Your task to perform on an android device: Empty the shopping cart on amazon.com. Search for "bose soundlink mini" on amazon.com, select the first entry, and add it to the cart. Image 0: 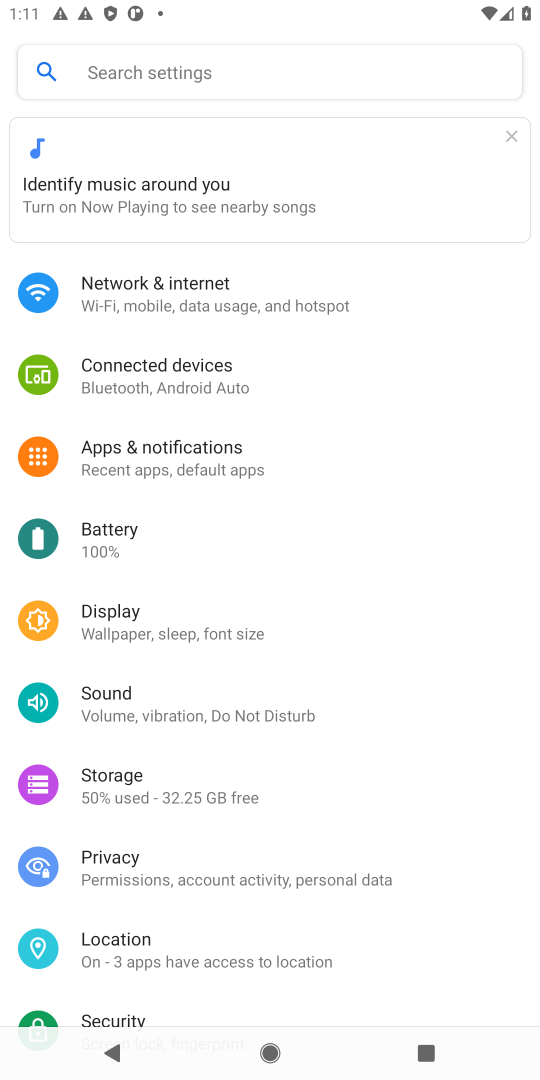
Step 0: press home button
Your task to perform on an android device: Empty the shopping cart on amazon.com. Search for "bose soundlink mini" on amazon.com, select the first entry, and add it to the cart. Image 1: 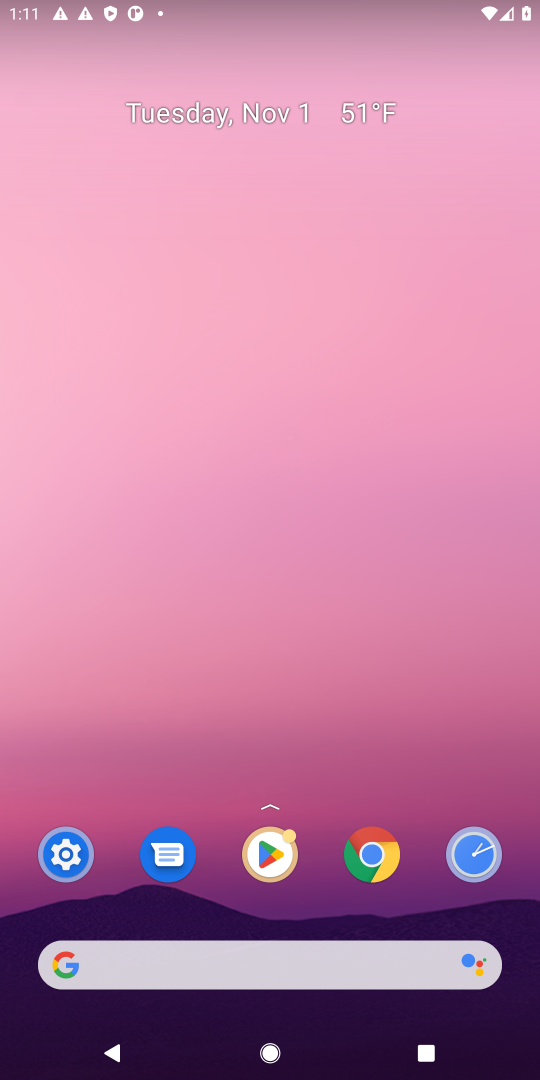
Step 1: click (284, 958)
Your task to perform on an android device: Empty the shopping cart on amazon.com. Search for "bose soundlink mini" on amazon.com, select the first entry, and add it to the cart. Image 2: 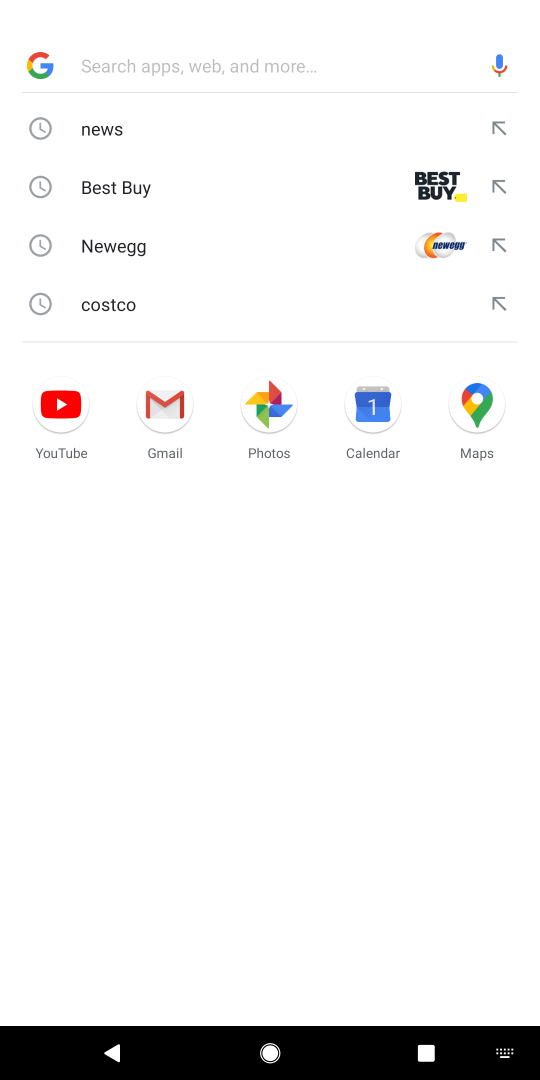
Step 2: type "amazon"
Your task to perform on an android device: Empty the shopping cart on amazon.com. Search for "bose soundlink mini" on amazon.com, select the first entry, and add it to the cart. Image 3: 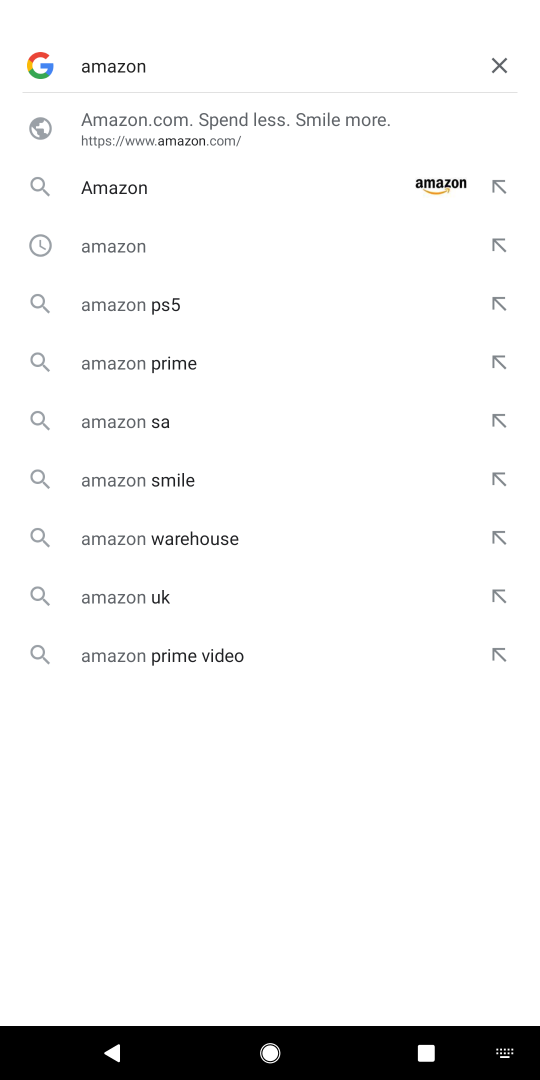
Step 3: click (117, 188)
Your task to perform on an android device: Empty the shopping cart on amazon.com. Search for "bose soundlink mini" on amazon.com, select the first entry, and add it to the cart. Image 4: 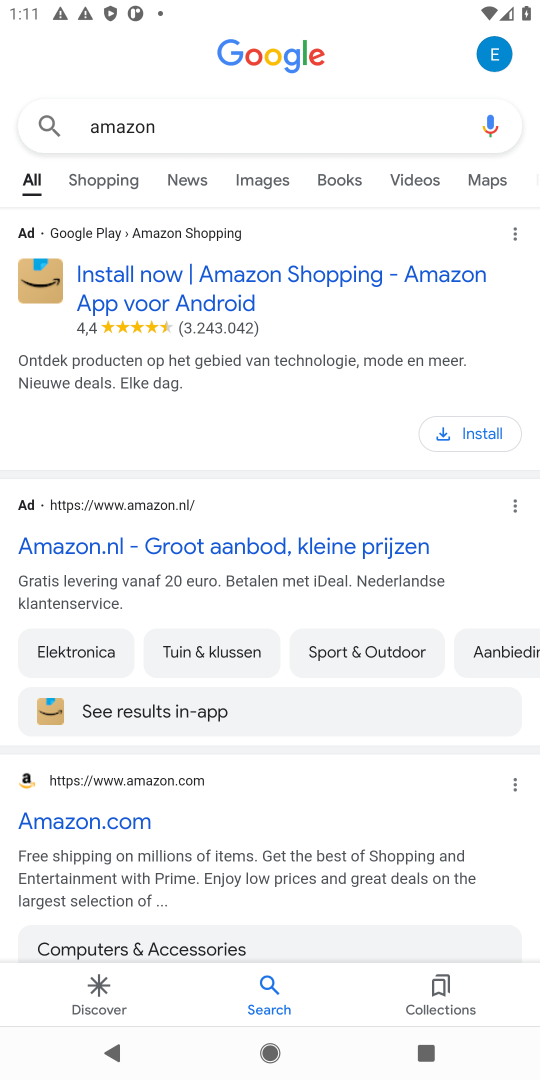
Step 4: click (108, 814)
Your task to perform on an android device: Empty the shopping cart on amazon.com. Search for "bose soundlink mini" on amazon.com, select the first entry, and add it to the cart. Image 5: 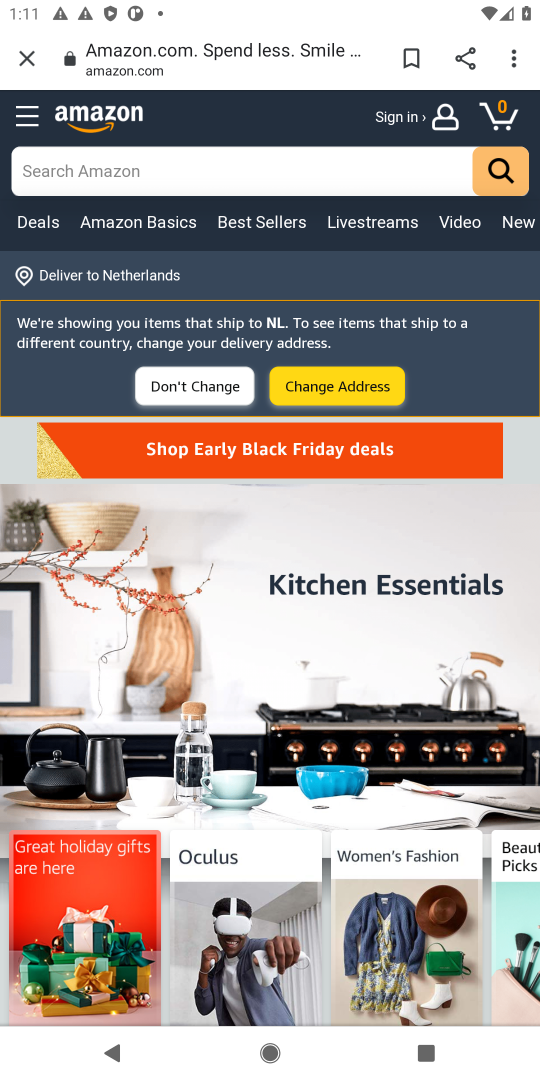
Step 5: click (163, 176)
Your task to perform on an android device: Empty the shopping cart on amazon.com. Search for "bose soundlink mini" on amazon.com, select the first entry, and add it to the cart. Image 6: 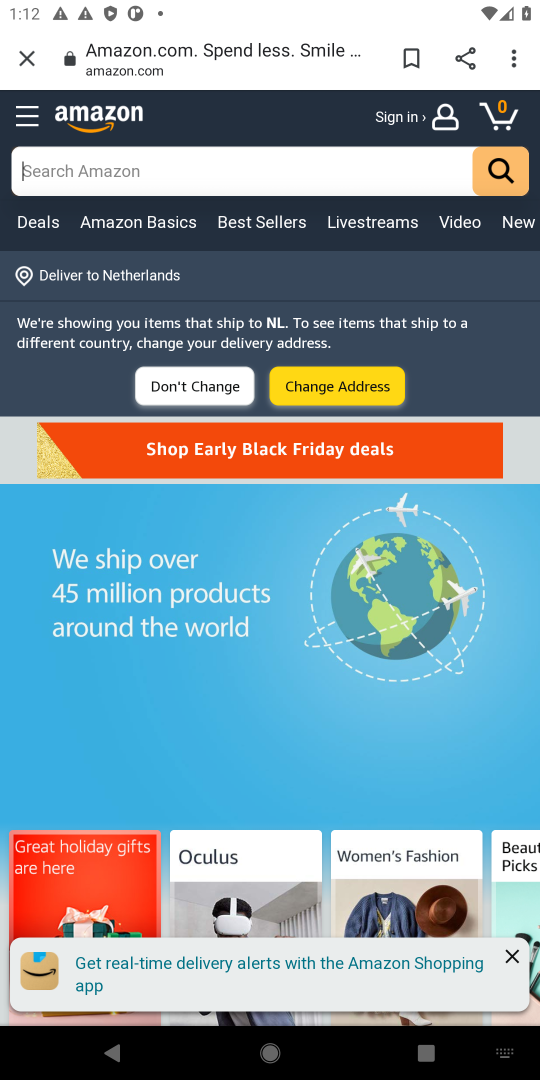
Step 6: type "b"
Your task to perform on an android device: Empty the shopping cart on amazon.com. Search for "bose soundlink mini" on amazon.com, select the first entry, and add it to the cart. Image 7: 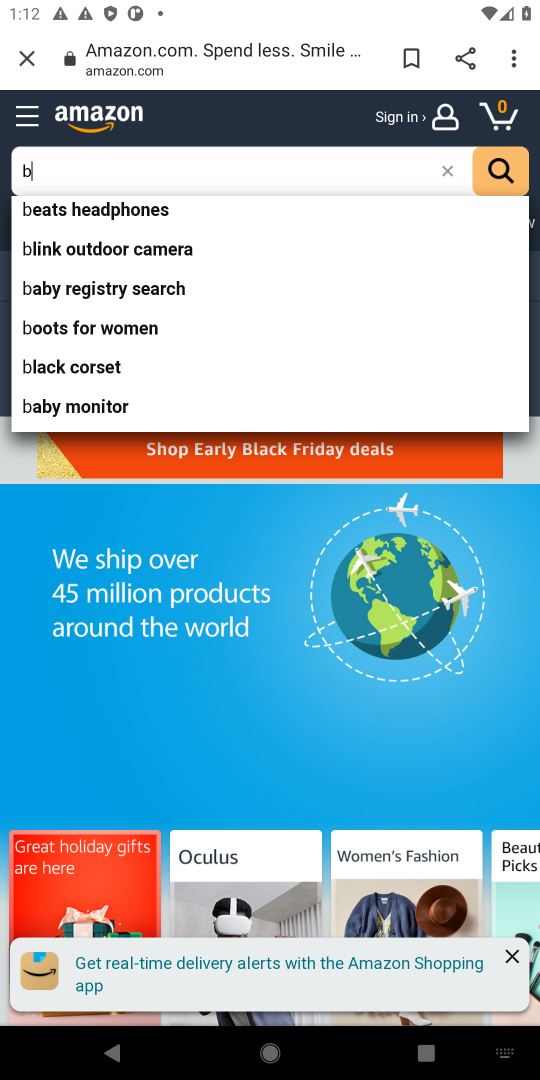
Step 7: type "os"
Your task to perform on an android device: Empty the shopping cart on amazon.com. Search for "bose soundlink mini" on amazon.com, select the first entry, and add it to the cart. Image 8: 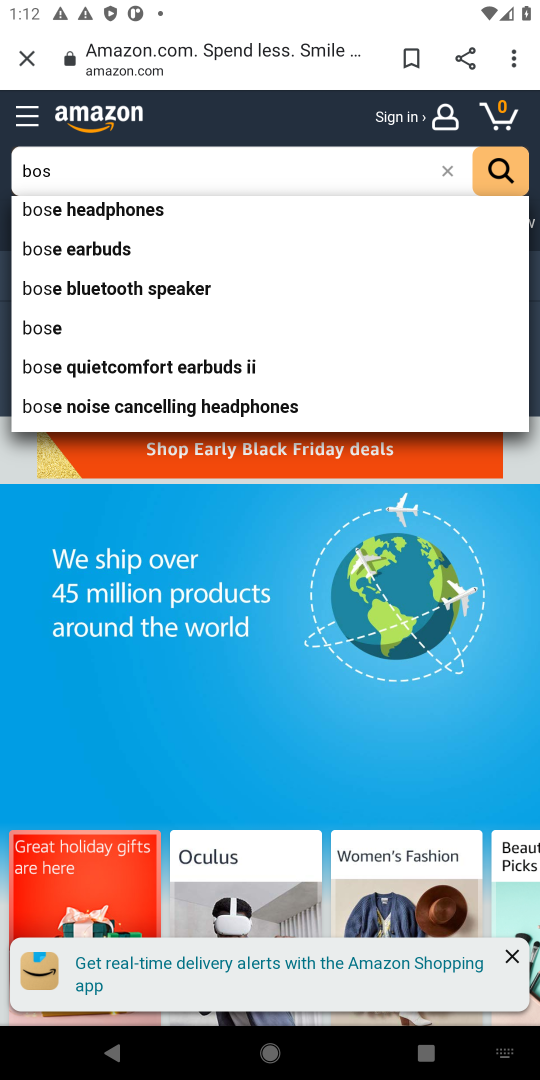
Step 8: type "e soundlink mini"
Your task to perform on an android device: Empty the shopping cart on amazon.com. Search for "bose soundlink mini" on amazon.com, select the first entry, and add it to the cart. Image 9: 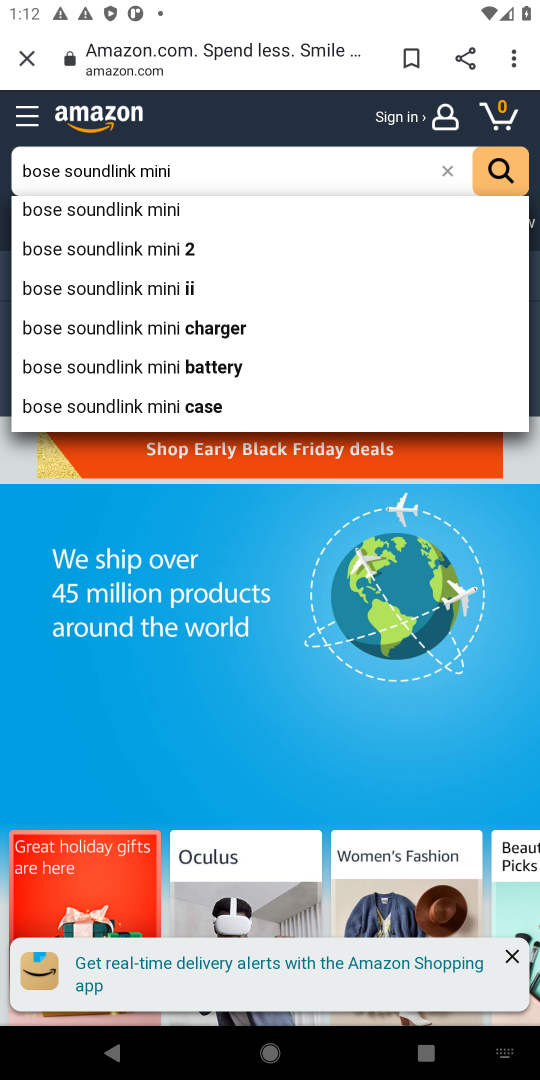
Step 9: click (118, 208)
Your task to perform on an android device: Empty the shopping cart on amazon.com. Search for "bose soundlink mini" on amazon.com, select the first entry, and add it to the cart. Image 10: 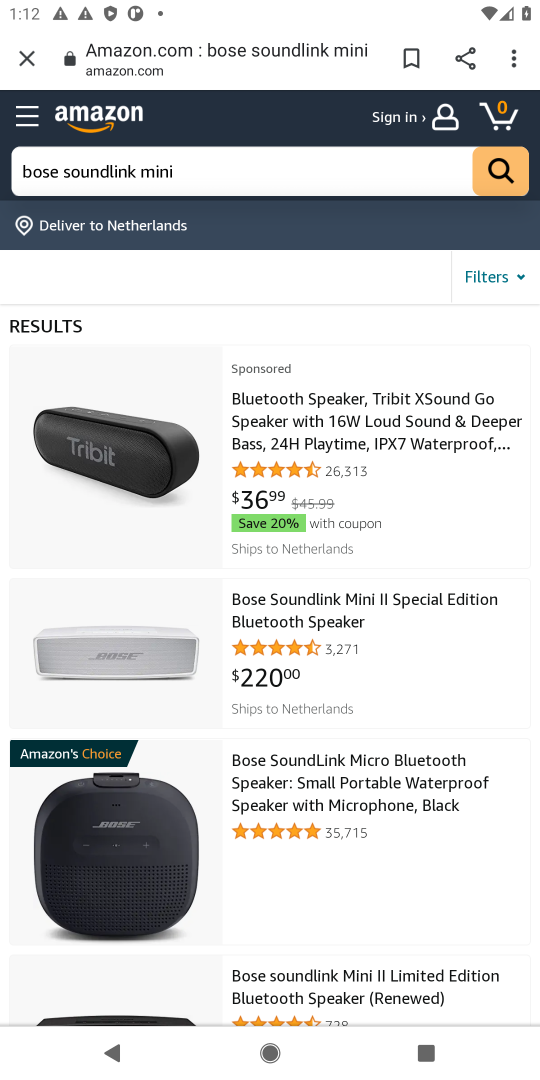
Step 10: click (393, 425)
Your task to perform on an android device: Empty the shopping cart on amazon.com. Search for "bose soundlink mini" on amazon.com, select the first entry, and add it to the cart. Image 11: 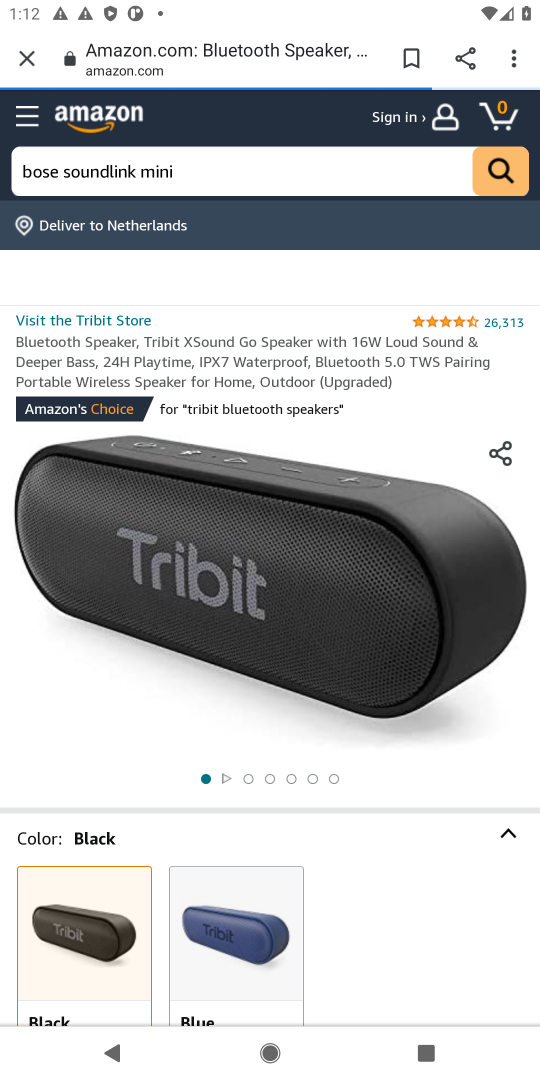
Step 11: drag from (471, 757) to (421, 443)
Your task to perform on an android device: Empty the shopping cart on amazon.com. Search for "bose soundlink mini" on amazon.com, select the first entry, and add it to the cart. Image 12: 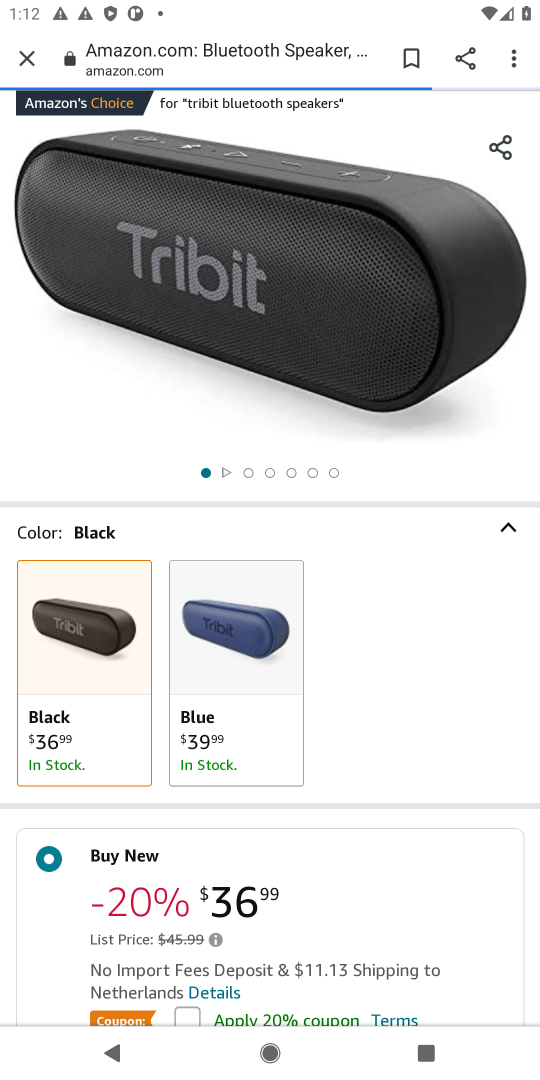
Step 12: drag from (425, 700) to (387, 331)
Your task to perform on an android device: Empty the shopping cart on amazon.com. Search for "bose soundlink mini" on amazon.com, select the first entry, and add it to the cart. Image 13: 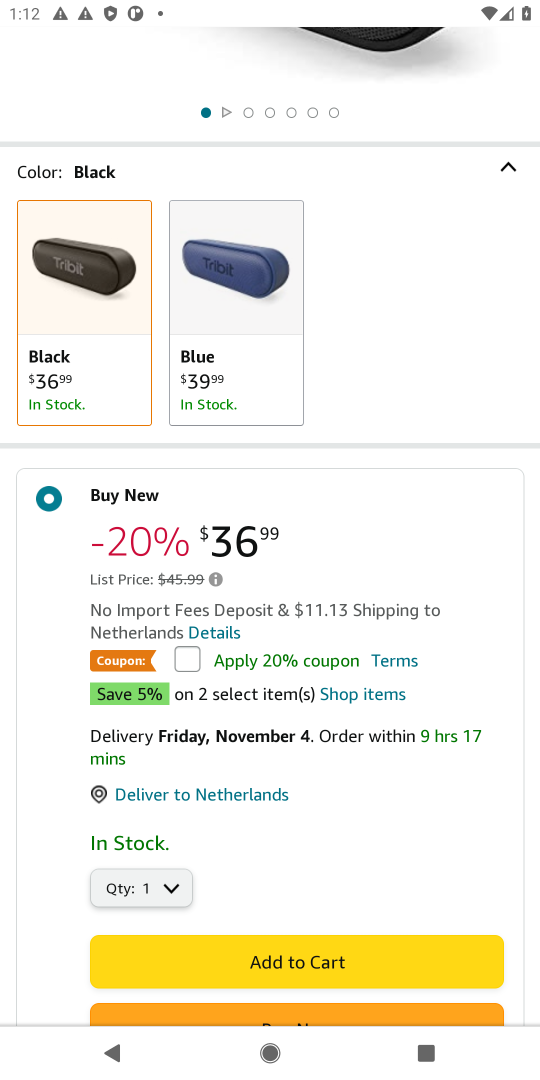
Step 13: click (326, 970)
Your task to perform on an android device: Empty the shopping cart on amazon.com. Search for "bose soundlink mini" on amazon.com, select the first entry, and add it to the cart. Image 14: 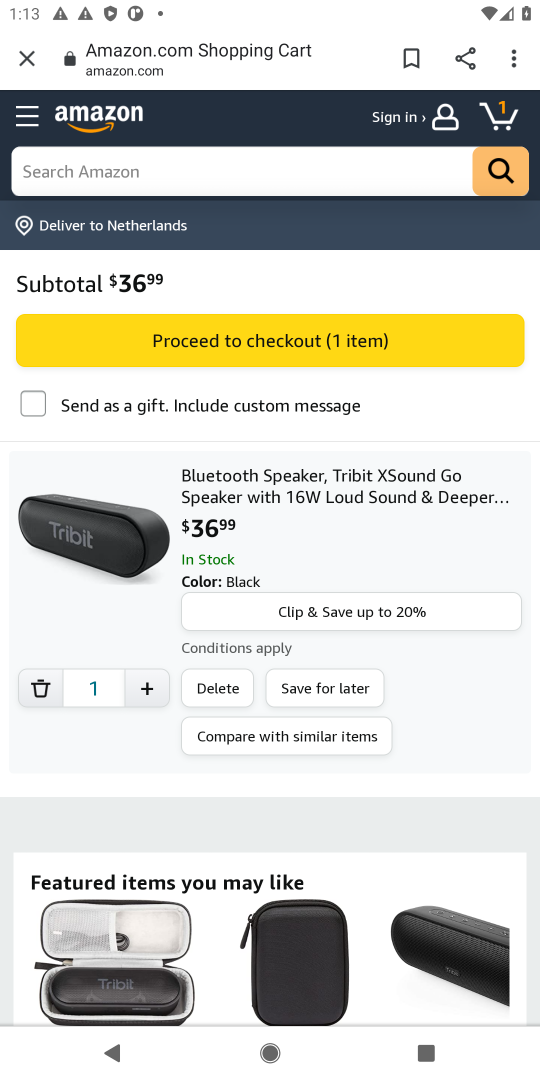
Step 14: task complete